Your task to perform on an android device: turn on sleep mode Image 0: 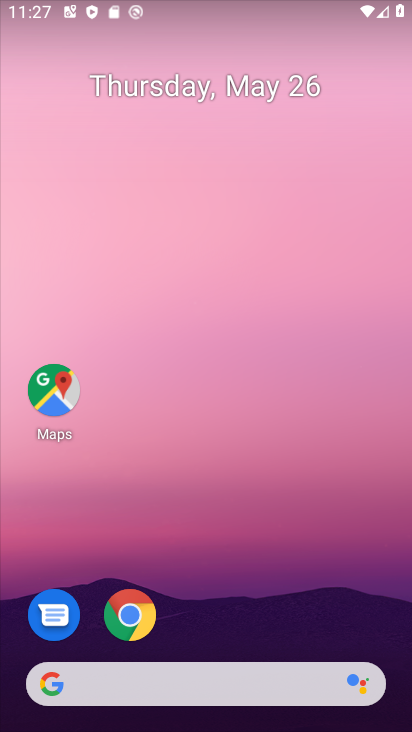
Step 0: drag from (272, 710) to (342, 166)
Your task to perform on an android device: turn on sleep mode Image 1: 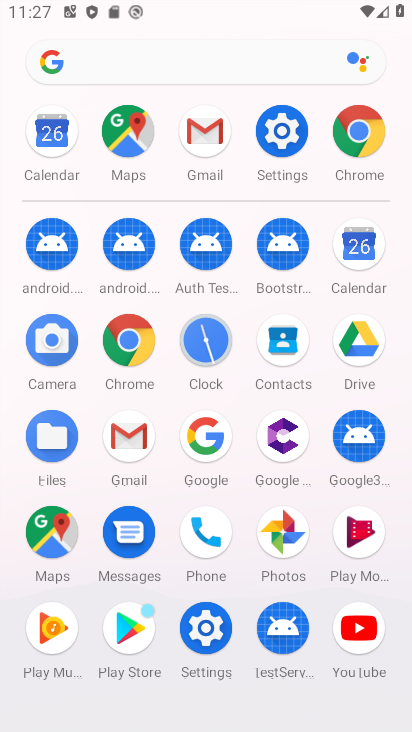
Step 1: click (262, 116)
Your task to perform on an android device: turn on sleep mode Image 2: 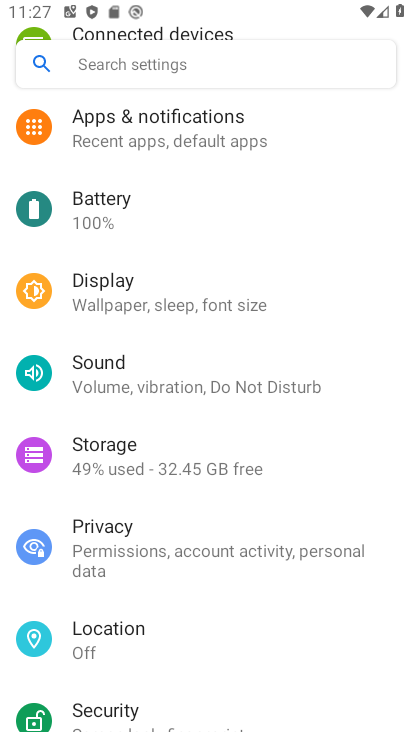
Step 2: drag from (248, 207) to (313, 674)
Your task to perform on an android device: turn on sleep mode Image 3: 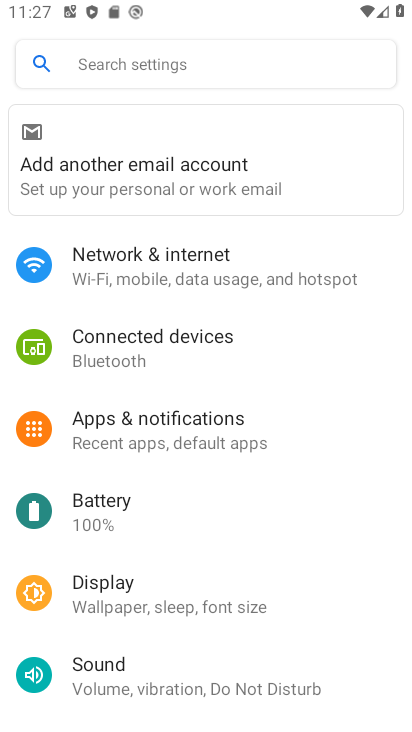
Step 3: drag from (245, 683) to (297, 398)
Your task to perform on an android device: turn on sleep mode Image 4: 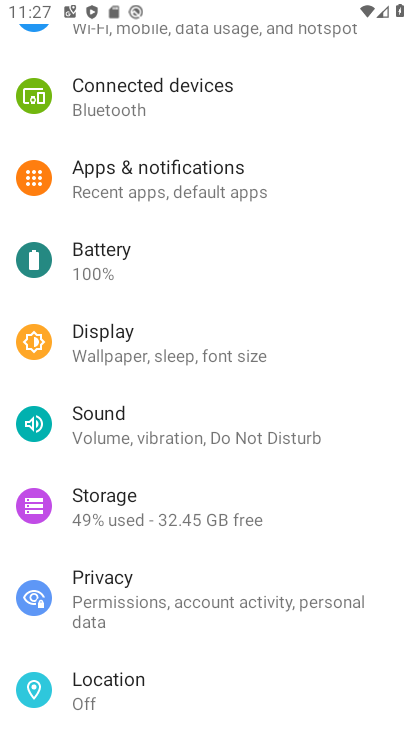
Step 4: click (273, 341)
Your task to perform on an android device: turn on sleep mode Image 5: 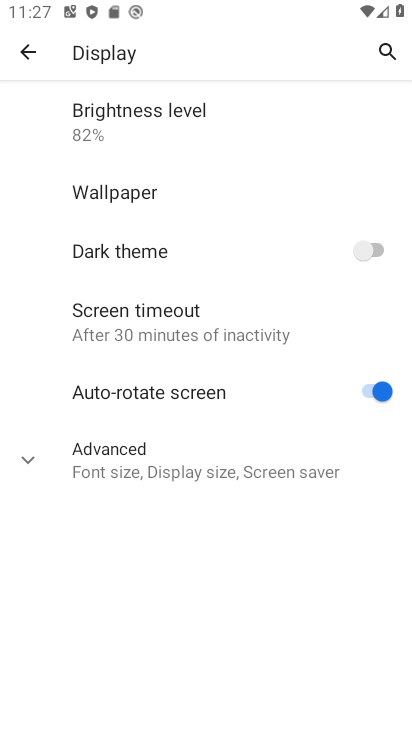
Step 5: task complete